Your task to perform on an android device: turn on translation in the chrome app Image 0: 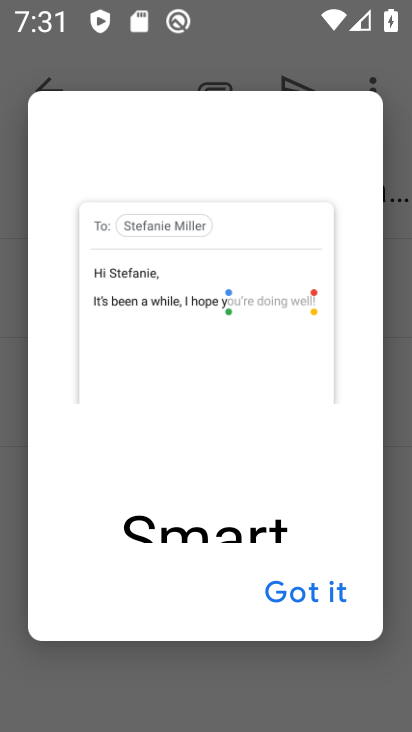
Step 0: press home button
Your task to perform on an android device: turn on translation in the chrome app Image 1: 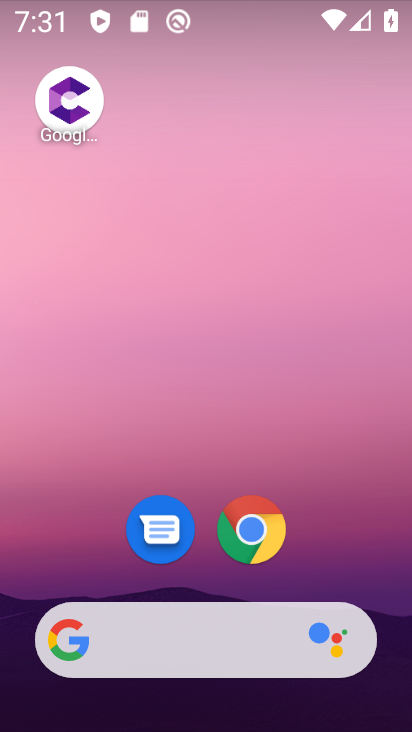
Step 1: click (253, 531)
Your task to perform on an android device: turn on translation in the chrome app Image 2: 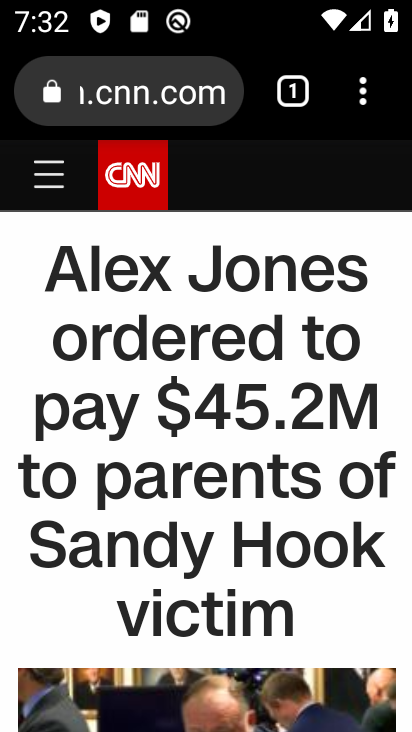
Step 2: click (363, 93)
Your task to perform on an android device: turn on translation in the chrome app Image 3: 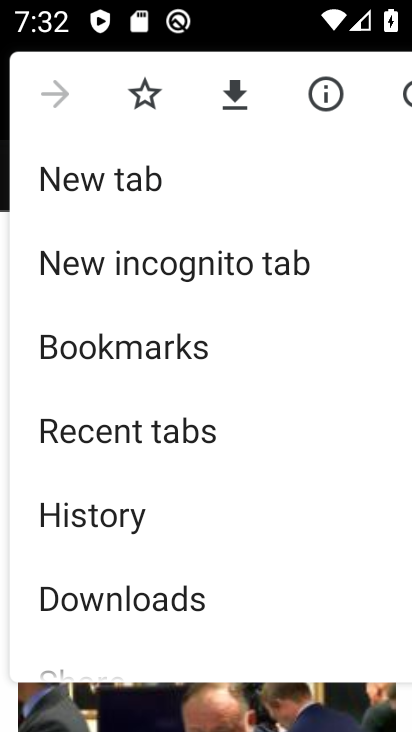
Step 3: drag from (128, 389) to (229, 273)
Your task to perform on an android device: turn on translation in the chrome app Image 4: 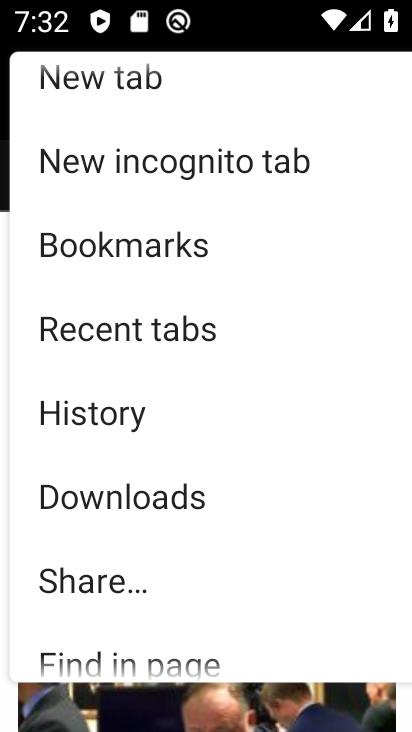
Step 4: drag from (87, 517) to (169, 406)
Your task to perform on an android device: turn on translation in the chrome app Image 5: 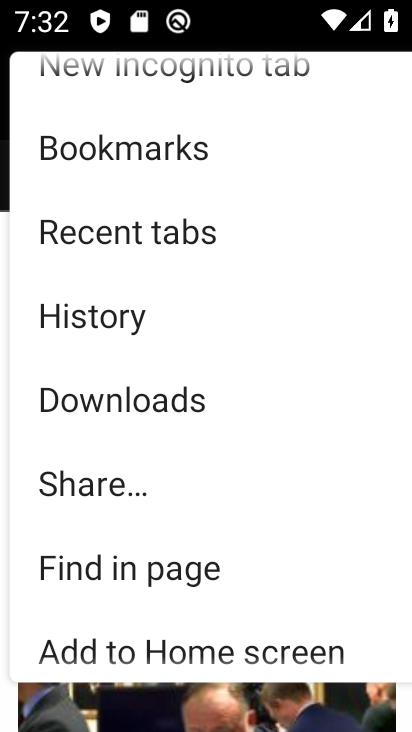
Step 5: drag from (101, 517) to (168, 417)
Your task to perform on an android device: turn on translation in the chrome app Image 6: 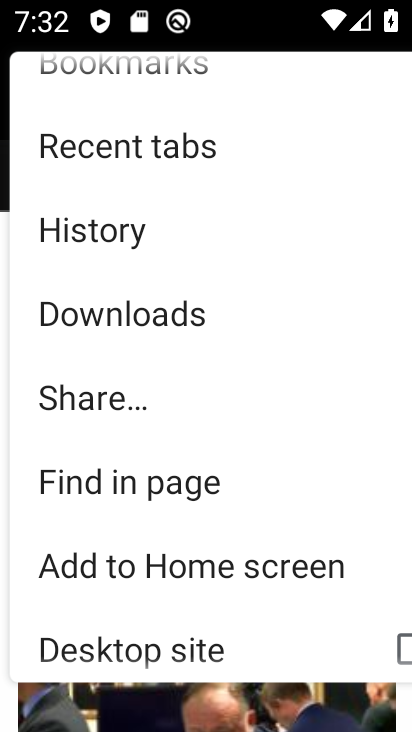
Step 6: drag from (107, 521) to (176, 404)
Your task to perform on an android device: turn on translation in the chrome app Image 7: 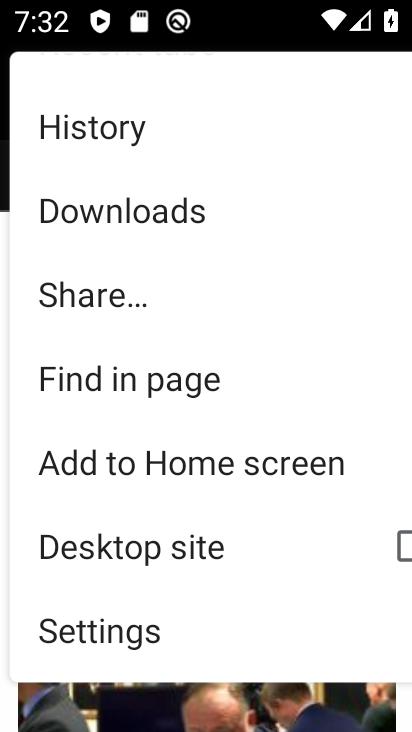
Step 7: drag from (114, 495) to (185, 384)
Your task to perform on an android device: turn on translation in the chrome app Image 8: 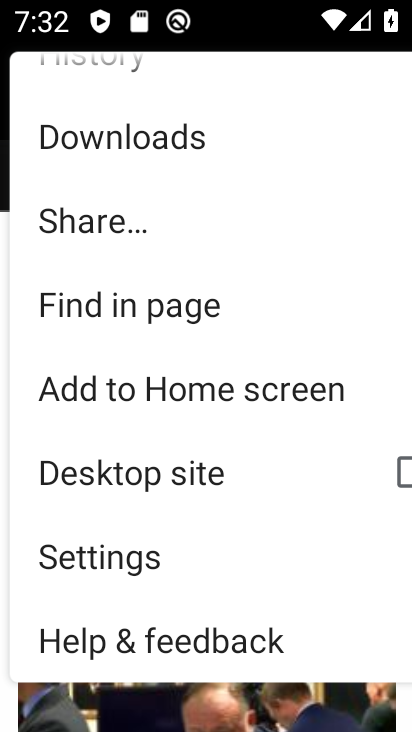
Step 8: click (125, 566)
Your task to perform on an android device: turn on translation in the chrome app Image 9: 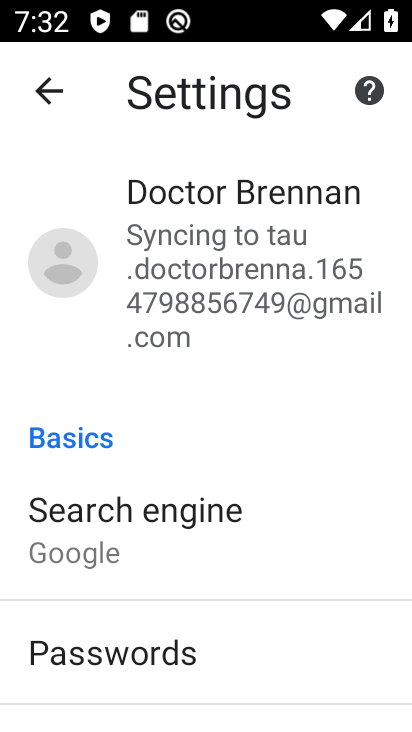
Step 9: drag from (175, 583) to (261, 386)
Your task to perform on an android device: turn on translation in the chrome app Image 10: 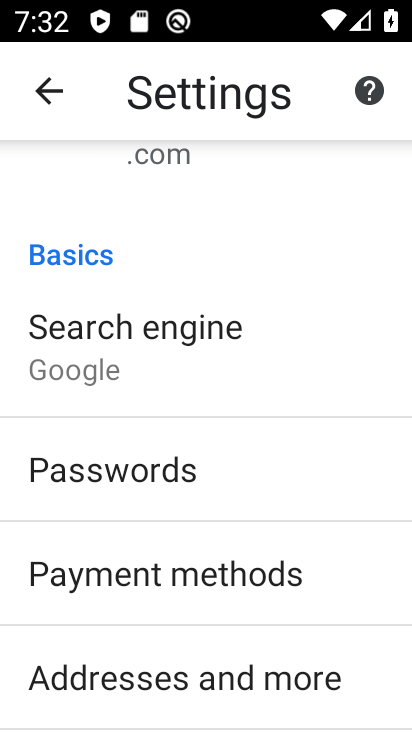
Step 10: drag from (143, 619) to (245, 401)
Your task to perform on an android device: turn on translation in the chrome app Image 11: 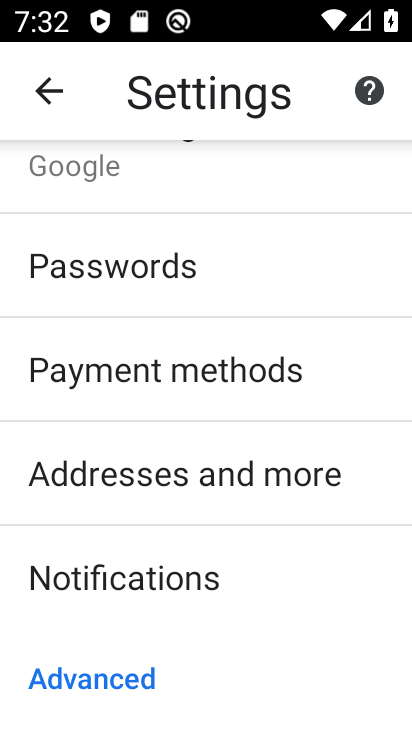
Step 11: drag from (158, 545) to (295, 332)
Your task to perform on an android device: turn on translation in the chrome app Image 12: 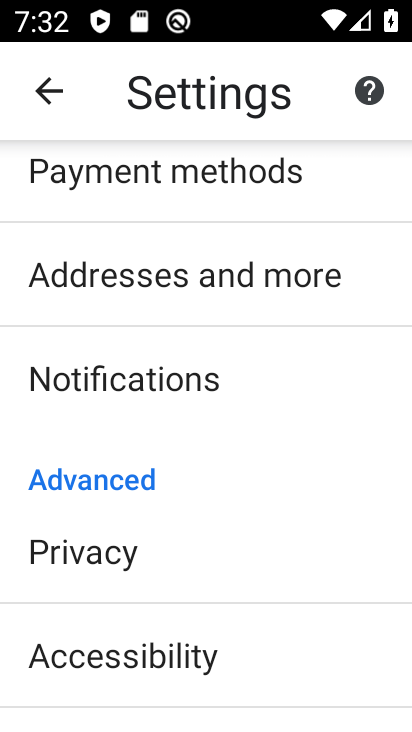
Step 12: drag from (220, 515) to (289, 342)
Your task to perform on an android device: turn on translation in the chrome app Image 13: 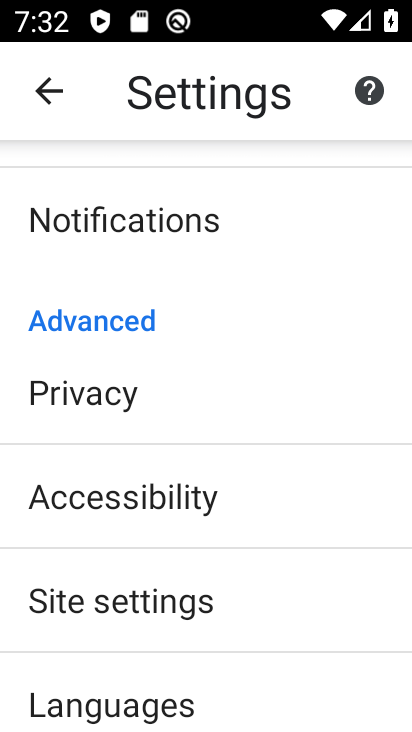
Step 13: drag from (212, 534) to (345, 314)
Your task to perform on an android device: turn on translation in the chrome app Image 14: 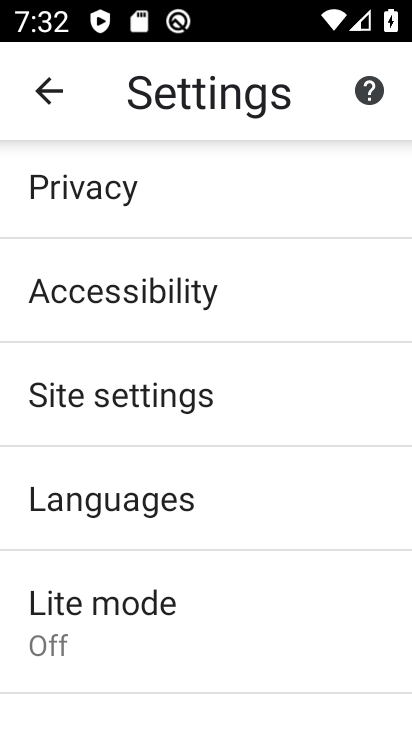
Step 14: click (102, 506)
Your task to perform on an android device: turn on translation in the chrome app Image 15: 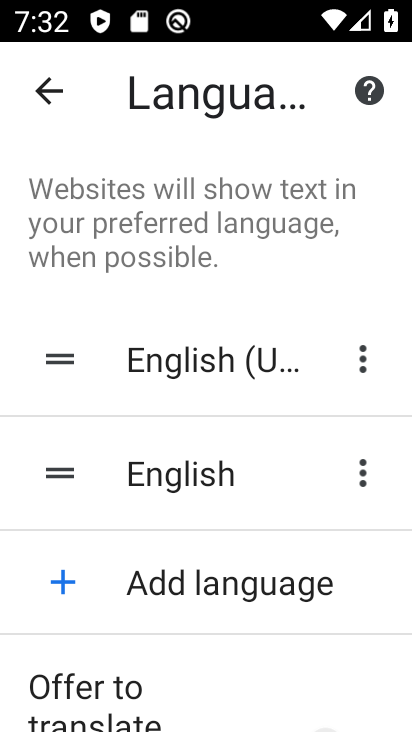
Step 15: drag from (195, 630) to (294, 486)
Your task to perform on an android device: turn on translation in the chrome app Image 16: 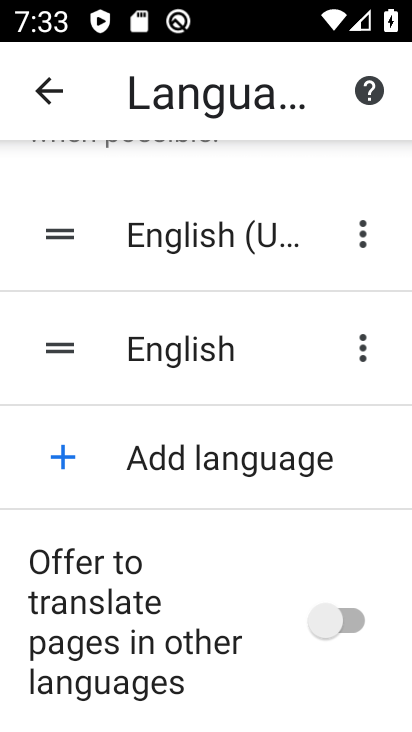
Step 16: click (323, 619)
Your task to perform on an android device: turn on translation in the chrome app Image 17: 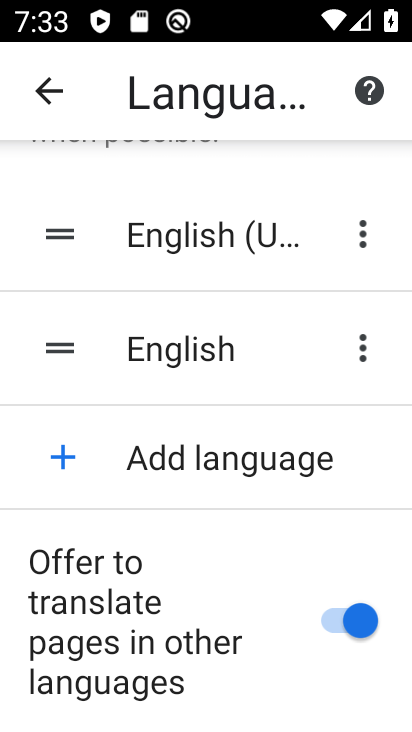
Step 17: task complete